Your task to perform on an android device: Go to Amazon Image 0: 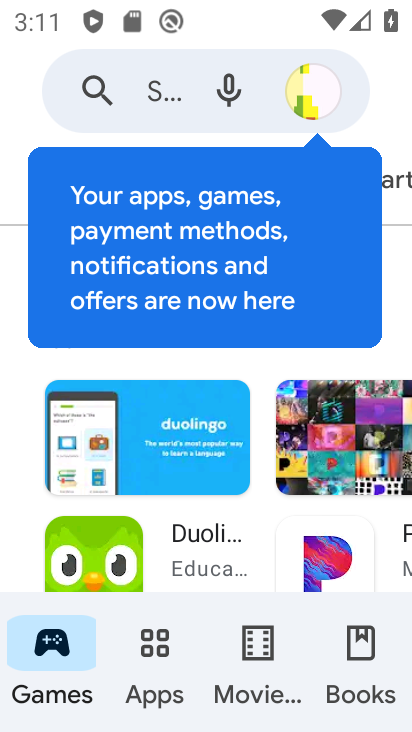
Step 0: press home button
Your task to perform on an android device: Go to Amazon Image 1: 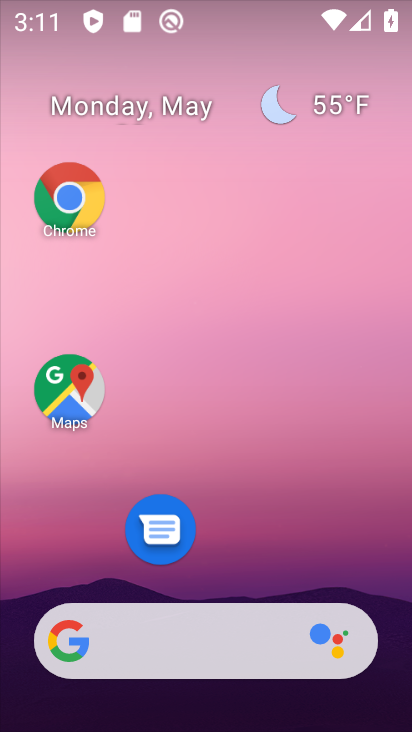
Step 1: click (84, 208)
Your task to perform on an android device: Go to Amazon Image 2: 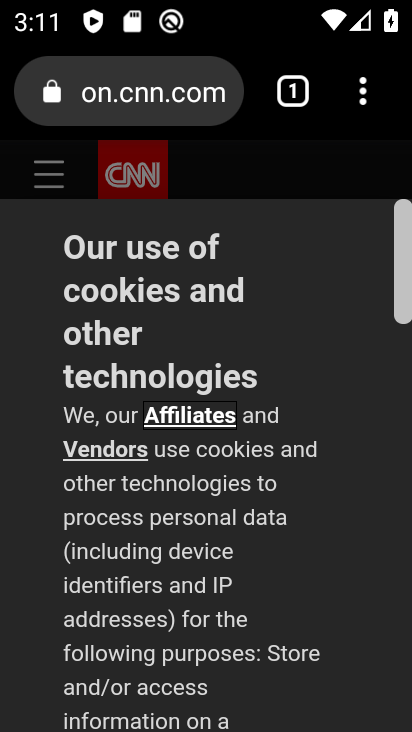
Step 2: click (172, 110)
Your task to perform on an android device: Go to Amazon Image 3: 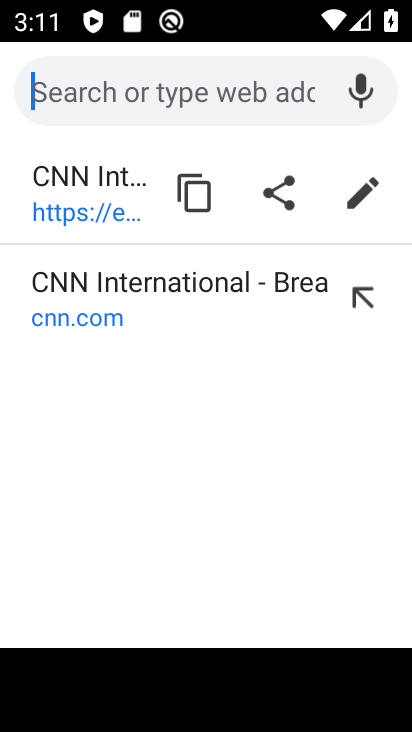
Step 3: type "amazon"
Your task to perform on an android device: Go to Amazon Image 4: 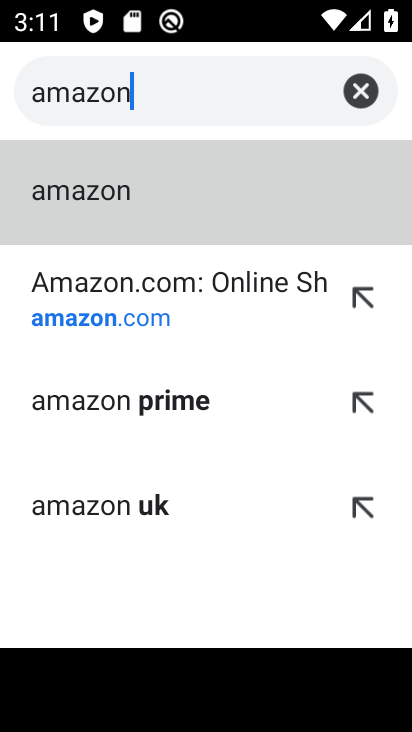
Step 4: click (262, 325)
Your task to perform on an android device: Go to Amazon Image 5: 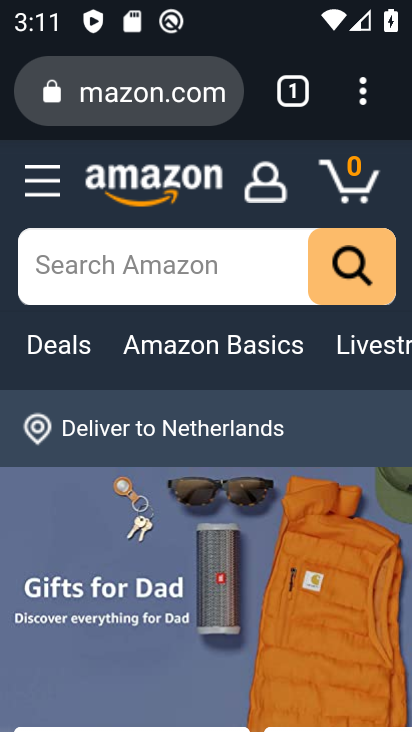
Step 5: task complete